Your task to perform on an android device: turn off notifications settings in the gmail app Image 0: 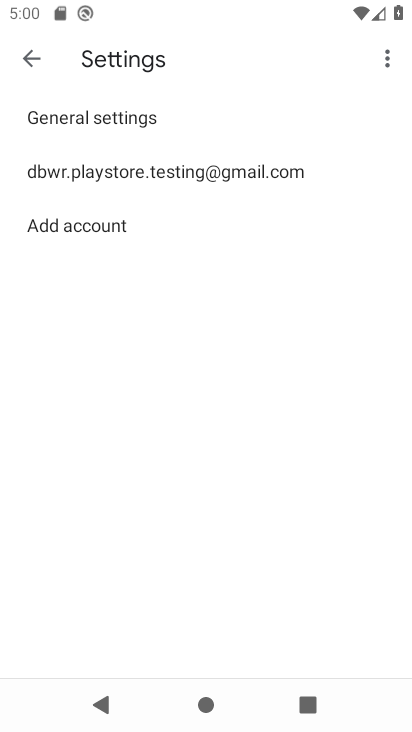
Step 0: press back button
Your task to perform on an android device: turn off notifications settings in the gmail app Image 1: 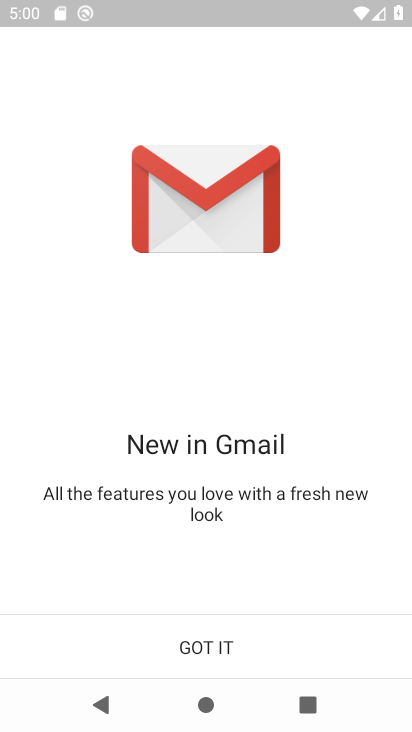
Step 1: click (203, 640)
Your task to perform on an android device: turn off notifications settings in the gmail app Image 2: 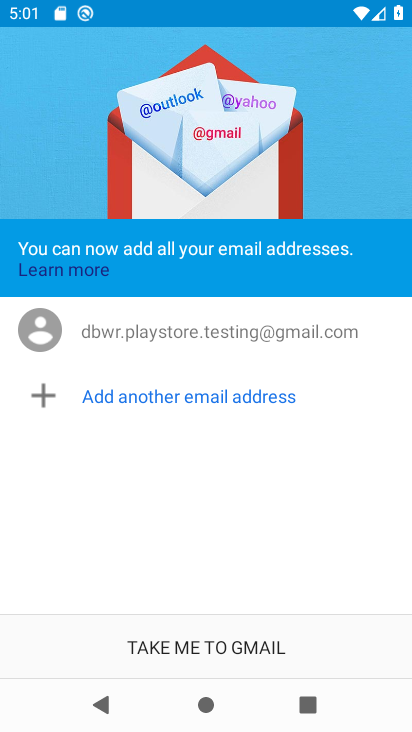
Step 2: click (213, 625)
Your task to perform on an android device: turn off notifications settings in the gmail app Image 3: 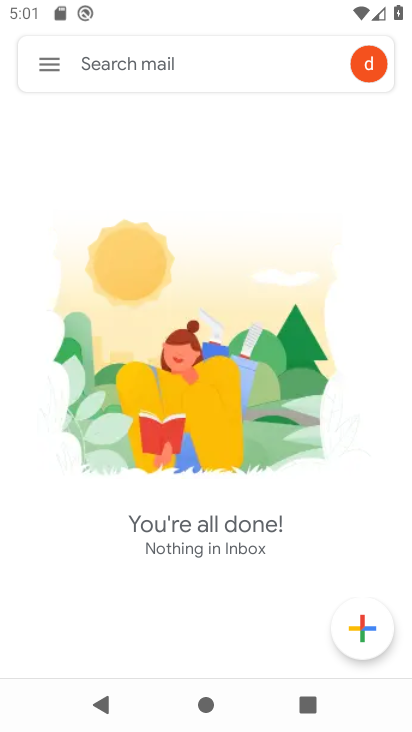
Step 3: click (55, 72)
Your task to perform on an android device: turn off notifications settings in the gmail app Image 4: 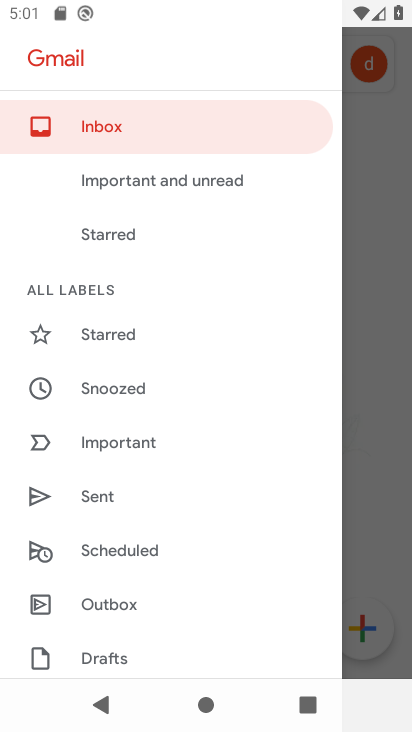
Step 4: drag from (180, 524) to (178, 147)
Your task to perform on an android device: turn off notifications settings in the gmail app Image 5: 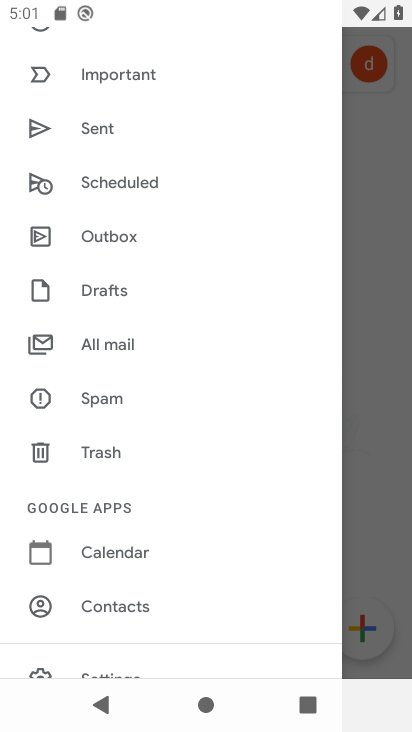
Step 5: drag from (170, 530) to (172, 150)
Your task to perform on an android device: turn off notifications settings in the gmail app Image 6: 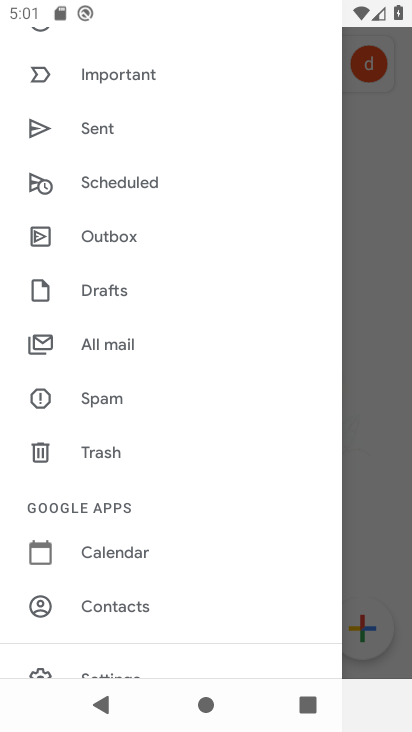
Step 6: drag from (181, 550) to (201, 169)
Your task to perform on an android device: turn off notifications settings in the gmail app Image 7: 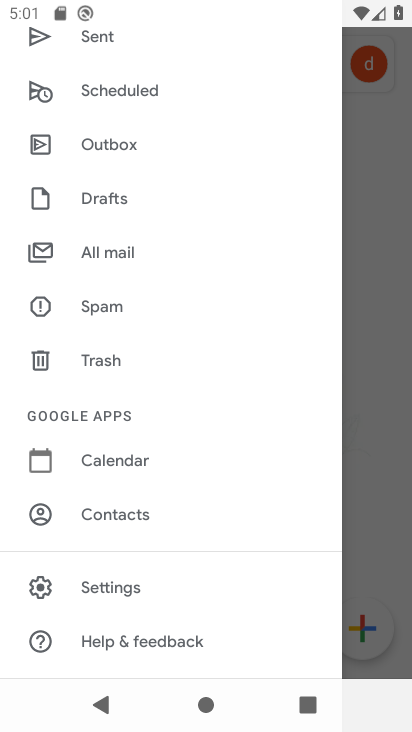
Step 7: click (118, 574)
Your task to perform on an android device: turn off notifications settings in the gmail app Image 8: 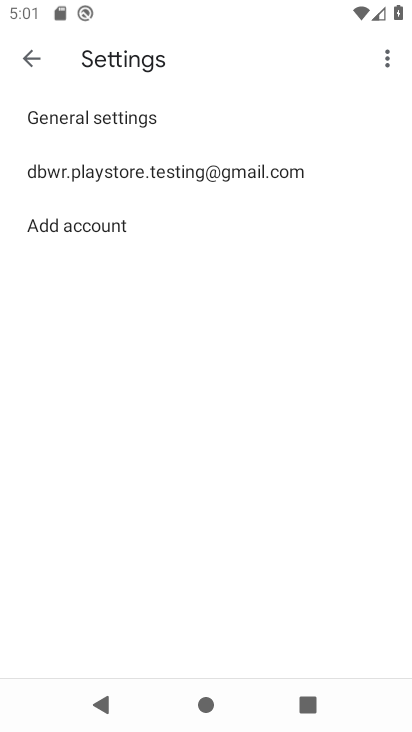
Step 8: click (154, 182)
Your task to perform on an android device: turn off notifications settings in the gmail app Image 9: 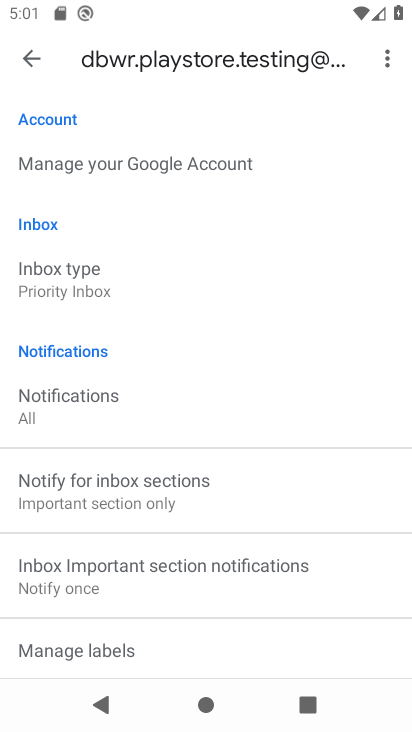
Step 9: drag from (265, 606) to (243, 302)
Your task to perform on an android device: turn off notifications settings in the gmail app Image 10: 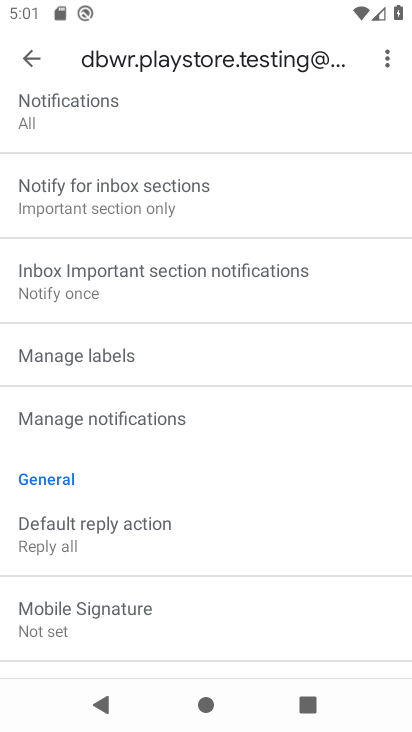
Step 10: drag from (210, 560) to (211, 198)
Your task to perform on an android device: turn off notifications settings in the gmail app Image 11: 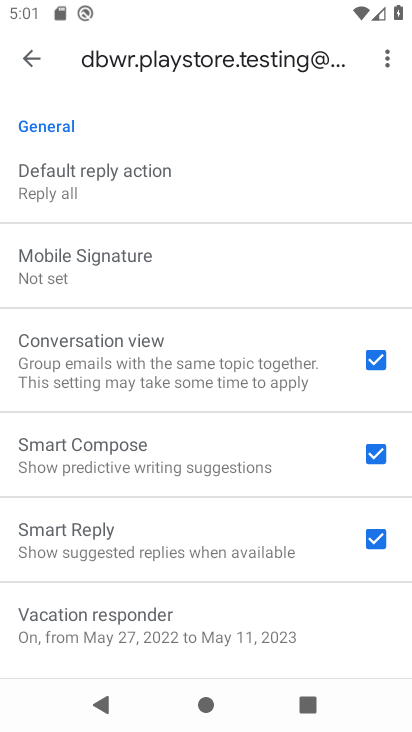
Step 11: drag from (209, 524) to (222, 226)
Your task to perform on an android device: turn off notifications settings in the gmail app Image 12: 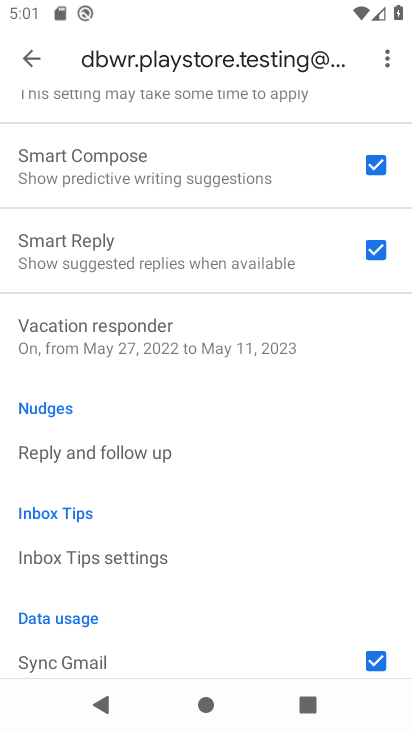
Step 12: drag from (235, 515) to (202, 114)
Your task to perform on an android device: turn off notifications settings in the gmail app Image 13: 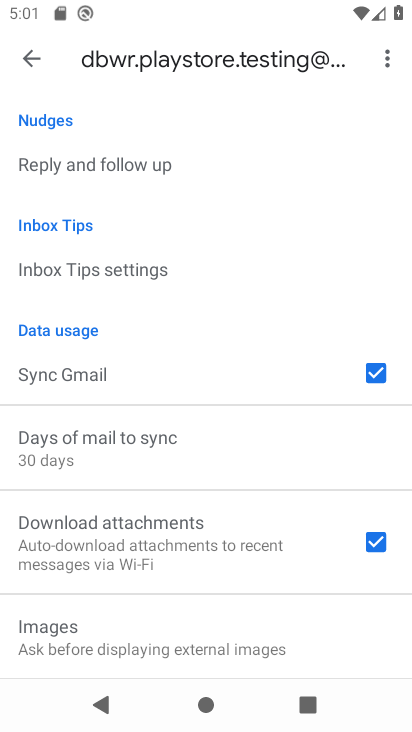
Step 13: drag from (225, 493) to (241, 650)
Your task to perform on an android device: turn off notifications settings in the gmail app Image 14: 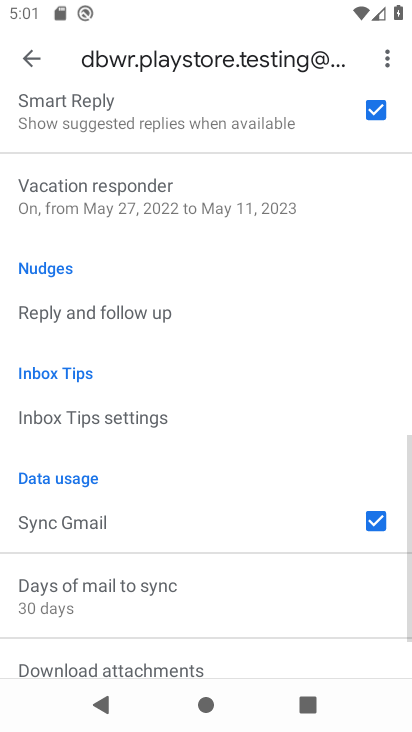
Step 14: drag from (232, 270) to (255, 575)
Your task to perform on an android device: turn off notifications settings in the gmail app Image 15: 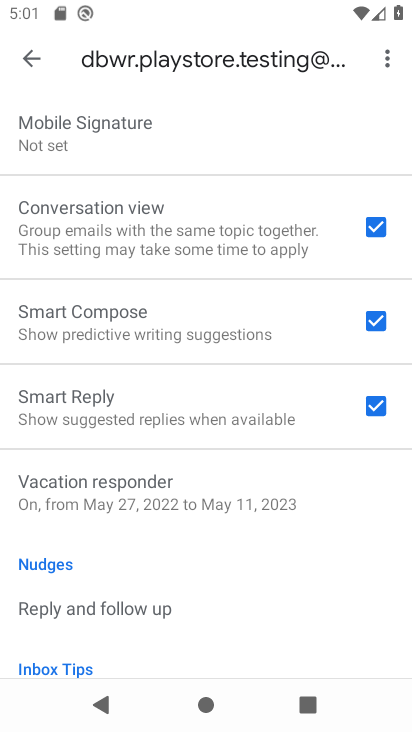
Step 15: drag from (225, 238) to (210, 566)
Your task to perform on an android device: turn off notifications settings in the gmail app Image 16: 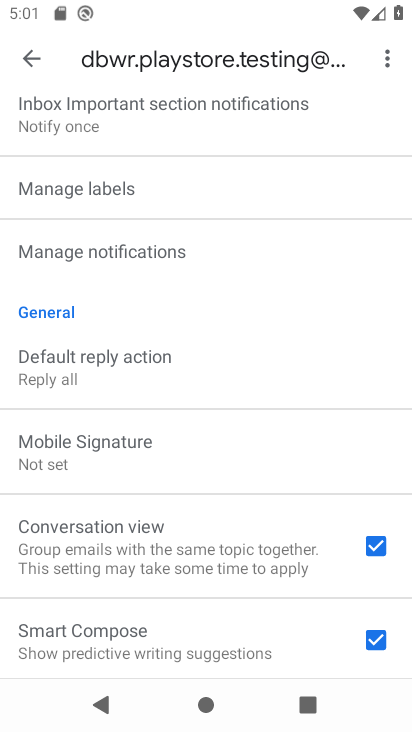
Step 16: click (113, 253)
Your task to perform on an android device: turn off notifications settings in the gmail app Image 17: 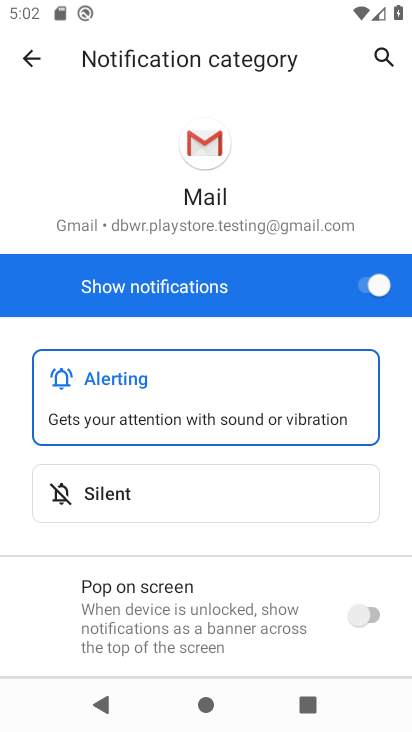
Step 17: click (365, 287)
Your task to perform on an android device: turn off notifications settings in the gmail app Image 18: 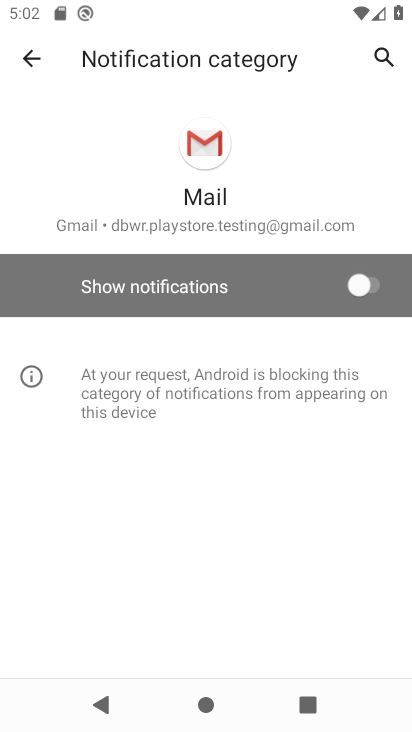
Step 18: task complete